Your task to perform on an android device: Clear the cart on newegg.com. Add jbl charge 4 to the cart on newegg.com Image 0: 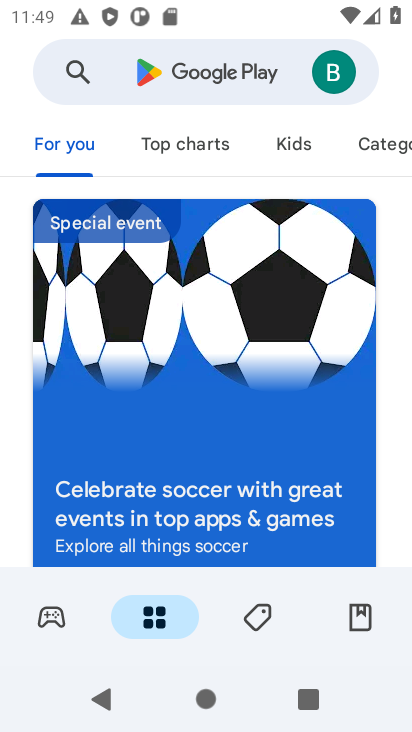
Step 0: press home button
Your task to perform on an android device: Clear the cart on newegg.com. Add jbl charge 4 to the cart on newegg.com Image 1: 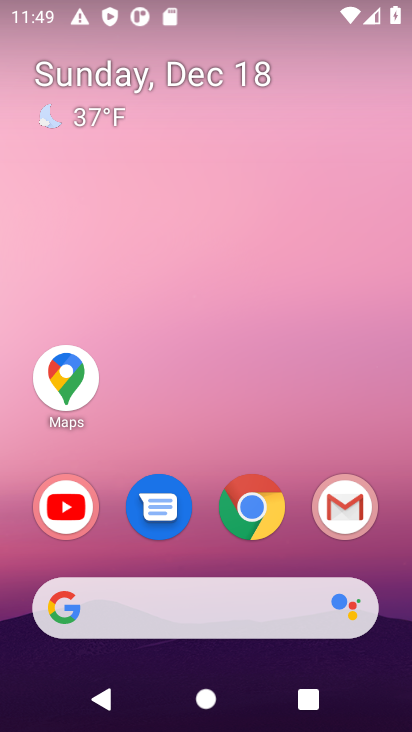
Step 1: click (247, 514)
Your task to perform on an android device: Clear the cart on newegg.com. Add jbl charge 4 to the cart on newegg.com Image 2: 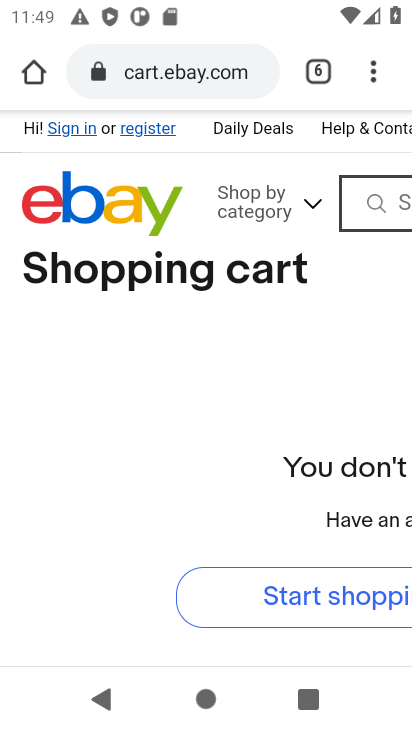
Step 2: click (157, 71)
Your task to perform on an android device: Clear the cart on newegg.com. Add jbl charge 4 to the cart on newegg.com Image 3: 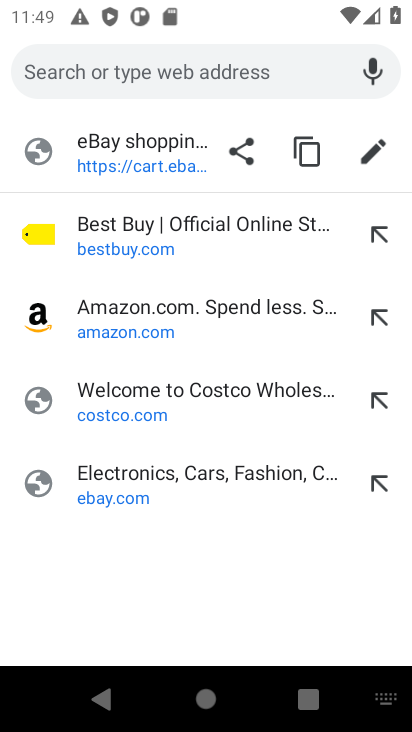
Step 3: type "newegg.com"
Your task to perform on an android device: Clear the cart on newegg.com. Add jbl charge 4 to the cart on newegg.com Image 4: 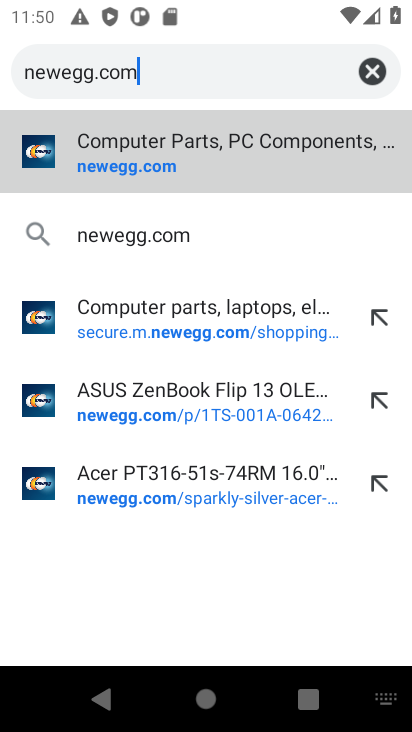
Step 4: click (108, 173)
Your task to perform on an android device: Clear the cart on newegg.com. Add jbl charge 4 to the cart on newegg.com Image 5: 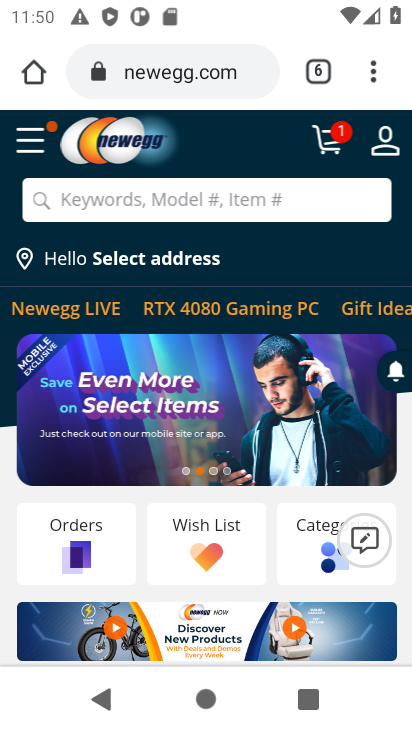
Step 5: click (326, 146)
Your task to perform on an android device: Clear the cart on newegg.com. Add jbl charge 4 to the cart on newegg.com Image 6: 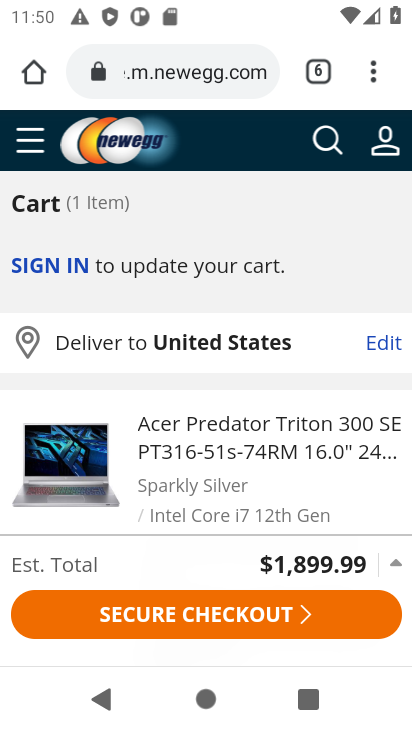
Step 6: drag from (180, 479) to (155, 219)
Your task to perform on an android device: Clear the cart on newegg.com. Add jbl charge 4 to the cart on newegg.com Image 7: 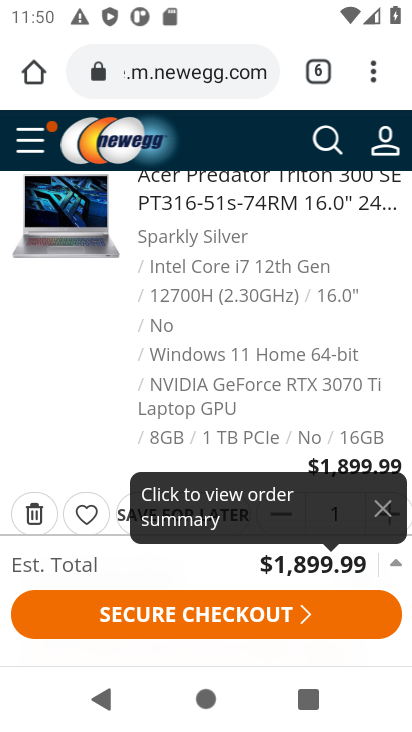
Step 7: click (30, 514)
Your task to perform on an android device: Clear the cart on newegg.com. Add jbl charge 4 to the cart on newegg.com Image 8: 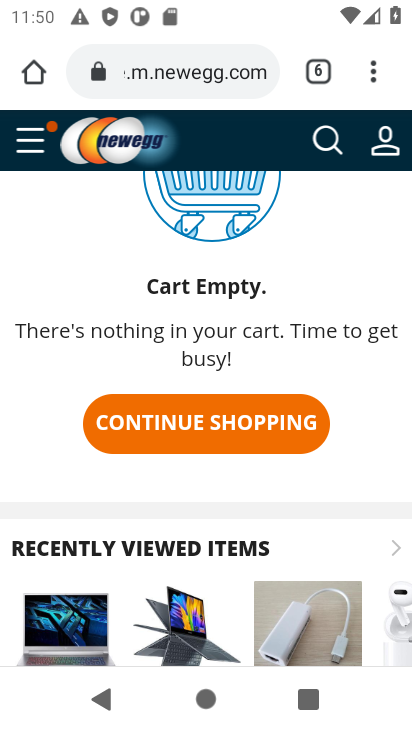
Step 8: click (319, 151)
Your task to perform on an android device: Clear the cart on newegg.com. Add jbl charge 4 to the cart on newegg.com Image 9: 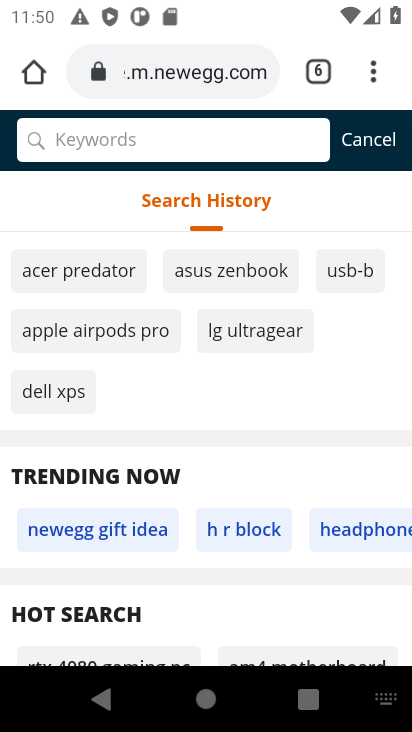
Step 9: type "jbl charge 4"
Your task to perform on an android device: Clear the cart on newegg.com. Add jbl charge 4 to the cart on newegg.com Image 10: 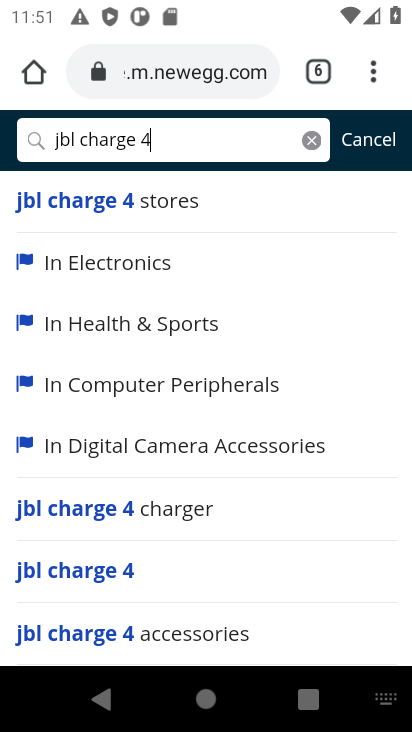
Step 10: click (98, 569)
Your task to perform on an android device: Clear the cart on newegg.com. Add jbl charge 4 to the cart on newegg.com Image 11: 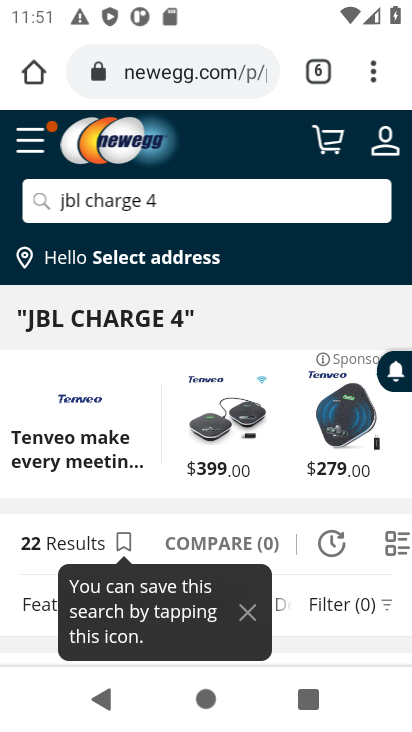
Step 11: drag from (120, 498) to (76, 260)
Your task to perform on an android device: Clear the cart on newegg.com. Add jbl charge 4 to the cart on newegg.com Image 12: 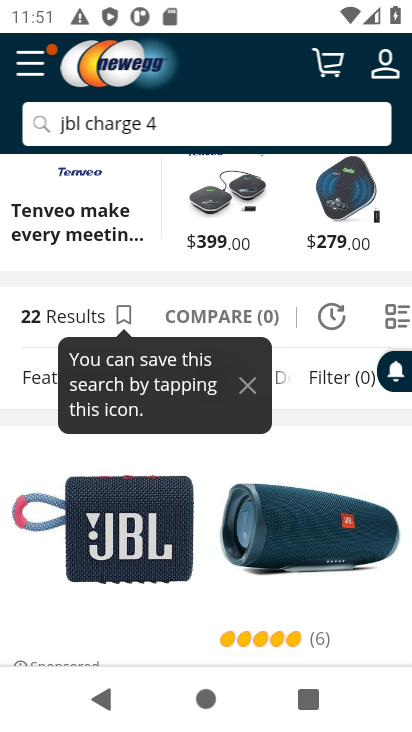
Step 12: drag from (142, 560) to (120, 232)
Your task to perform on an android device: Clear the cart on newegg.com. Add jbl charge 4 to the cart on newegg.com Image 13: 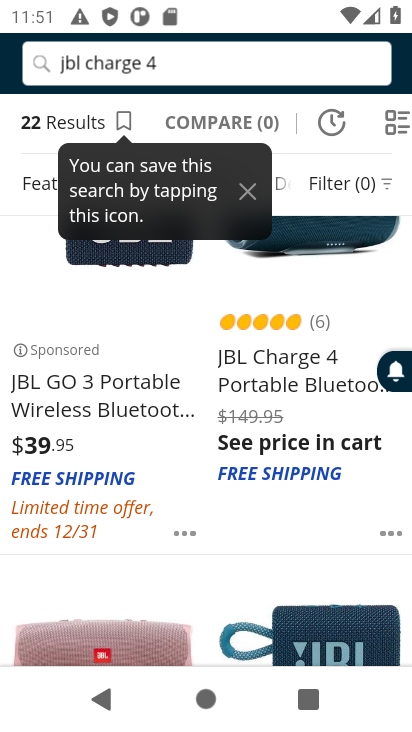
Step 13: drag from (139, 374) to (143, 660)
Your task to perform on an android device: Clear the cart on newegg.com. Add jbl charge 4 to the cart on newegg.com Image 14: 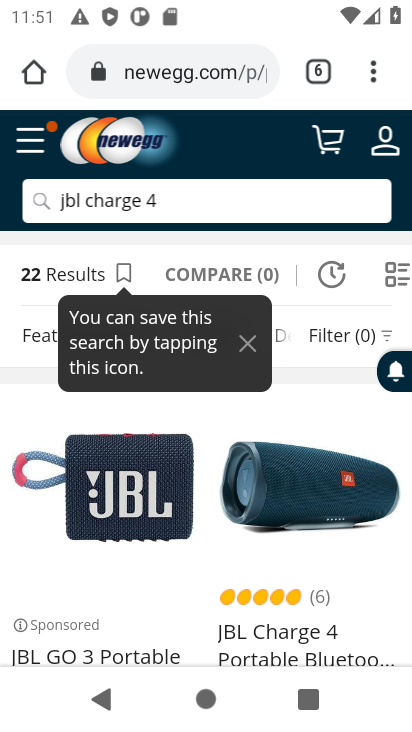
Step 14: drag from (145, 599) to (123, 409)
Your task to perform on an android device: Clear the cart on newegg.com. Add jbl charge 4 to the cart on newegg.com Image 15: 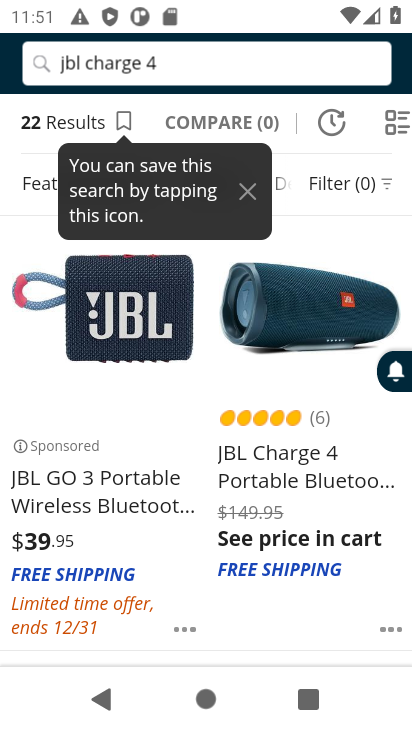
Step 15: click (350, 473)
Your task to perform on an android device: Clear the cart on newegg.com. Add jbl charge 4 to the cart on newegg.com Image 16: 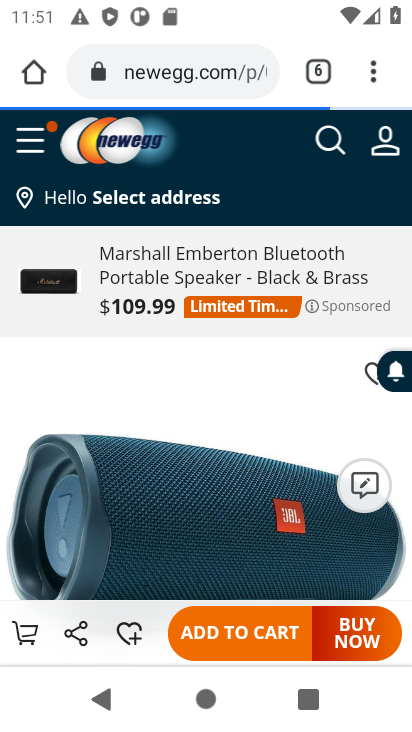
Step 16: drag from (153, 523) to (151, 358)
Your task to perform on an android device: Clear the cart on newegg.com. Add jbl charge 4 to the cart on newegg.com Image 17: 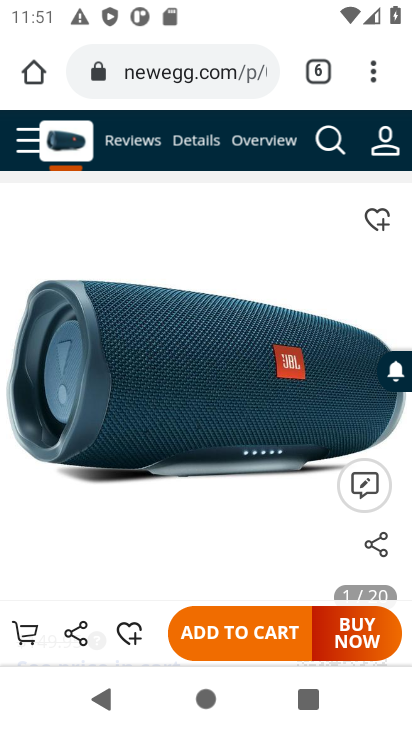
Step 17: click (226, 638)
Your task to perform on an android device: Clear the cart on newegg.com. Add jbl charge 4 to the cart on newegg.com Image 18: 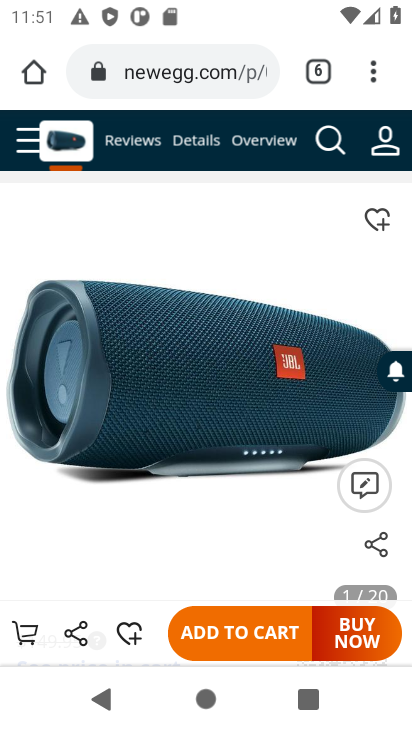
Step 18: click (239, 635)
Your task to perform on an android device: Clear the cart on newegg.com. Add jbl charge 4 to the cart on newegg.com Image 19: 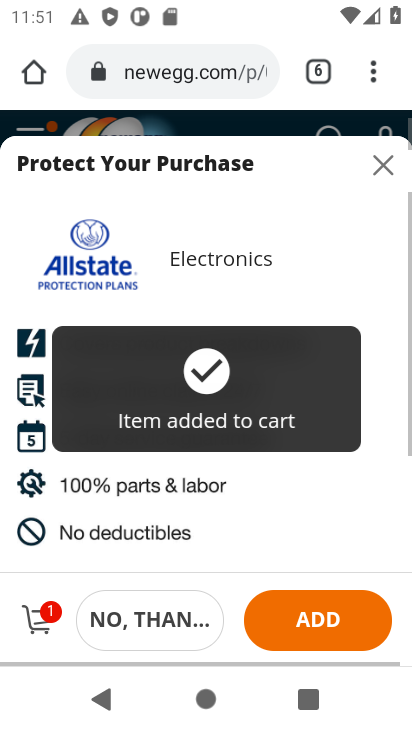
Step 19: task complete